Your task to perform on an android device: see sites visited before in the chrome app Image 0: 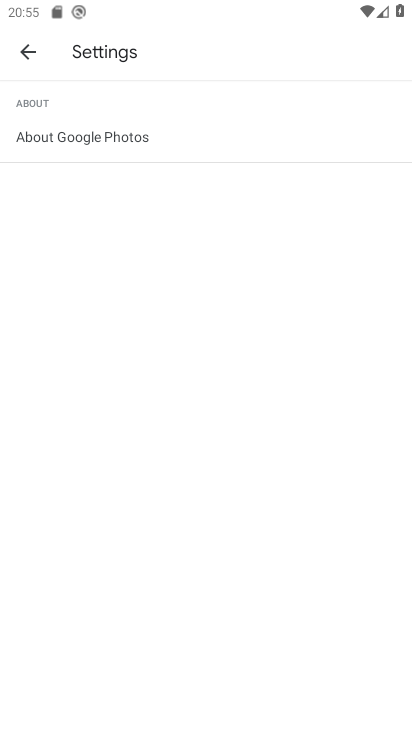
Step 0: press home button
Your task to perform on an android device: see sites visited before in the chrome app Image 1: 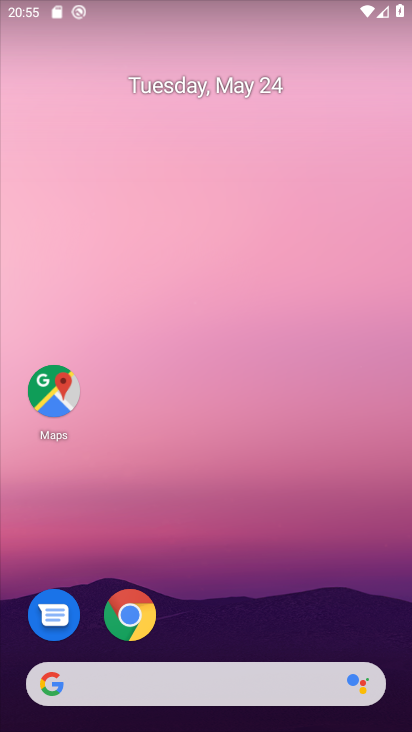
Step 1: drag from (213, 621) to (221, 257)
Your task to perform on an android device: see sites visited before in the chrome app Image 2: 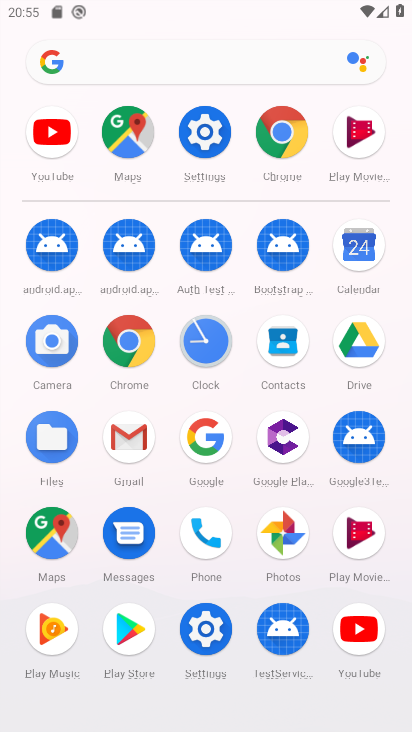
Step 2: click (274, 127)
Your task to perform on an android device: see sites visited before in the chrome app Image 3: 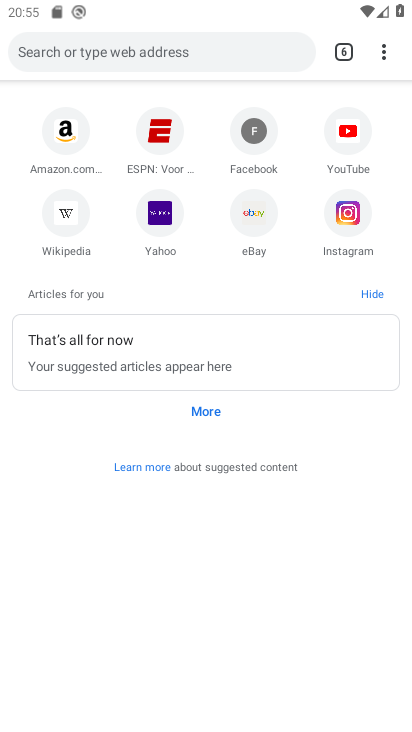
Step 3: click (393, 42)
Your task to perform on an android device: see sites visited before in the chrome app Image 4: 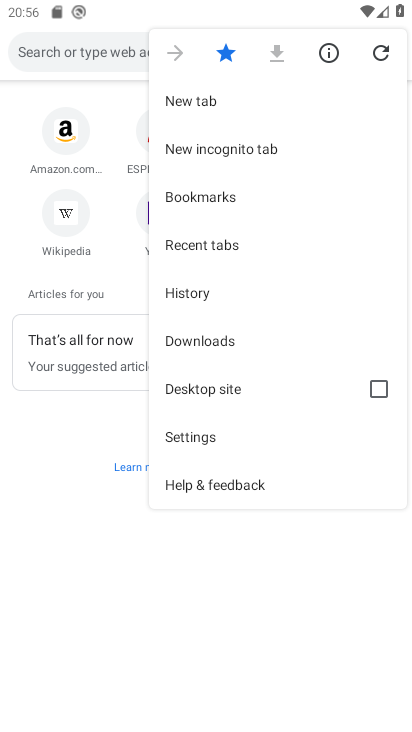
Step 4: click (219, 194)
Your task to perform on an android device: see sites visited before in the chrome app Image 5: 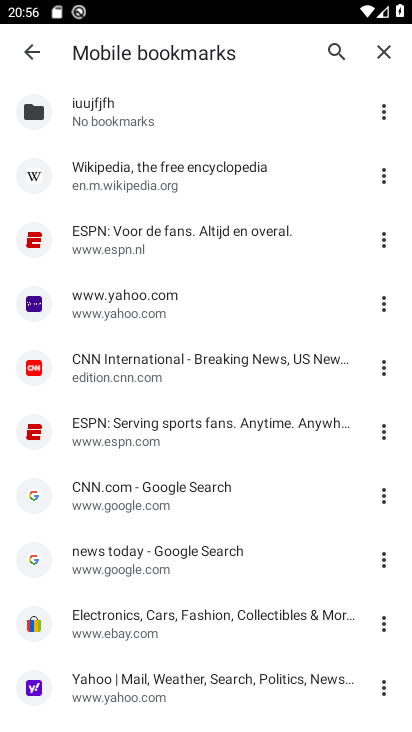
Step 5: click (384, 57)
Your task to perform on an android device: see sites visited before in the chrome app Image 6: 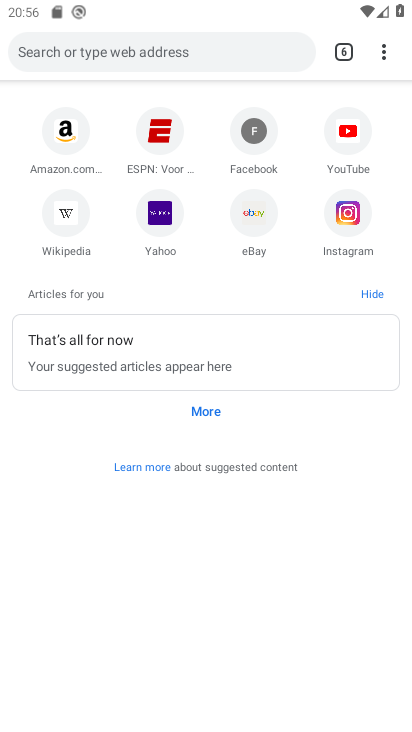
Step 6: click (385, 49)
Your task to perform on an android device: see sites visited before in the chrome app Image 7: 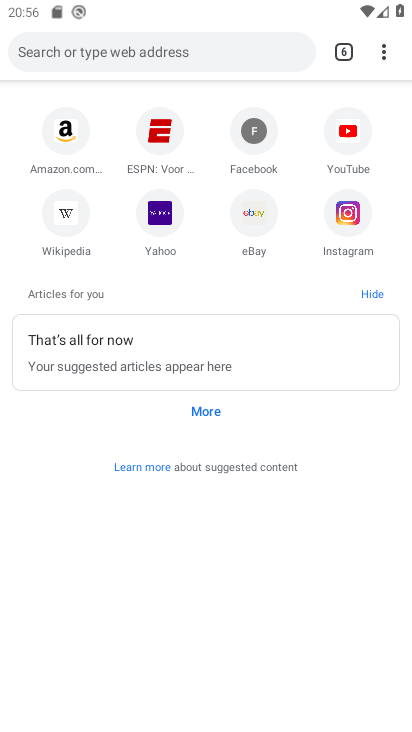
Step 7: click (381, 55)
Your task to perform on an android device: see sites visited before in the chrome app Image 8: 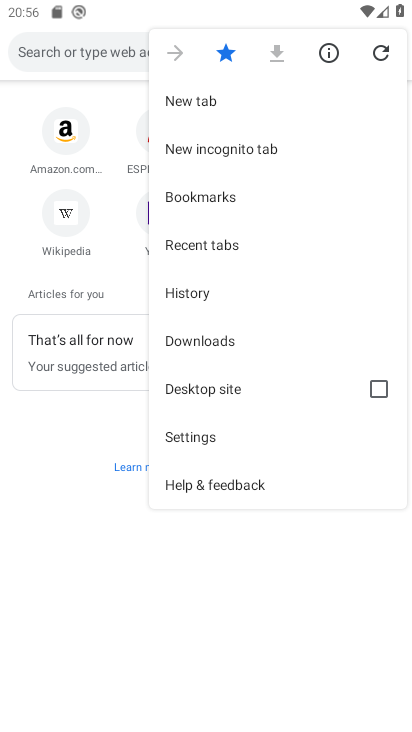
Step 8: click (188, 288)
Your task to perform on an android device: see sites visited before in the chrome app Image 9: 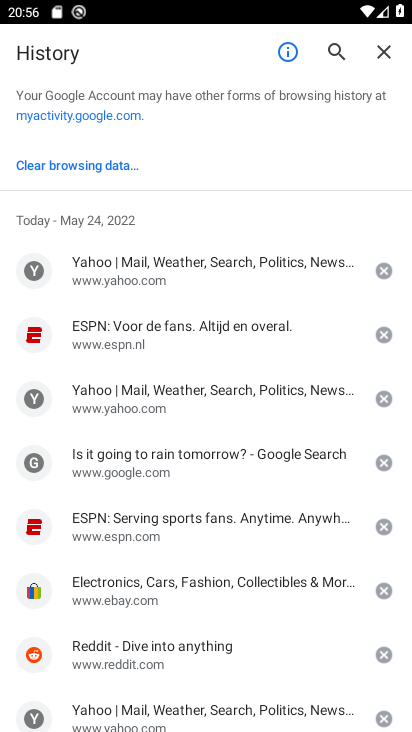
Step 9: task complete